Your task to perform on an android device: What's the weather going to be tomorrow? Image 0: 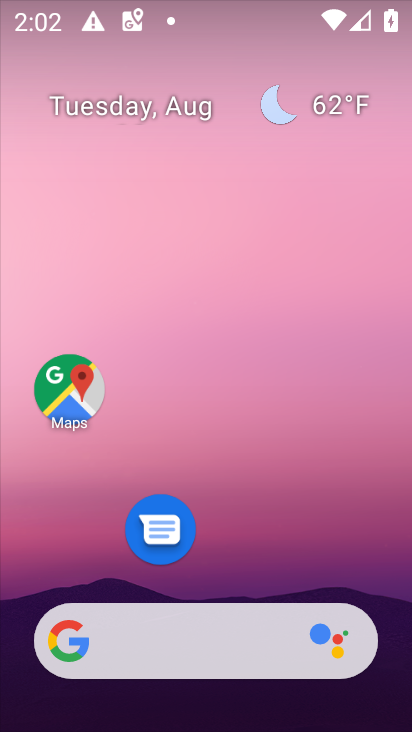
Step 0: click (246, 662)
Your task to perform on an android device: What's the weather going to be tomorrow? Image 1: 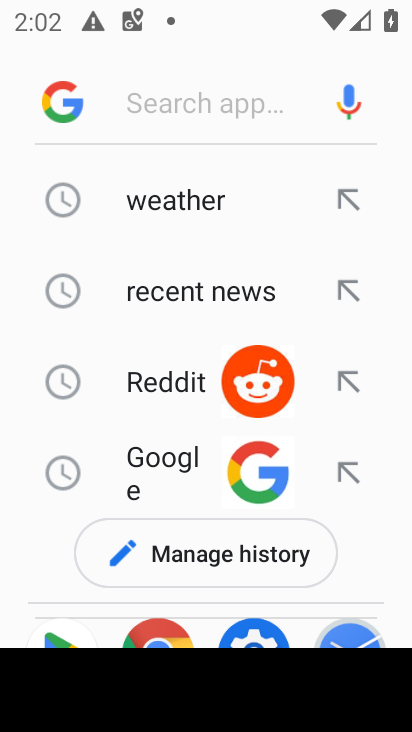
Step 1: click (181, 191)
Your task to perform on an android device: What's the weather going to be tomorrow? Image 2: 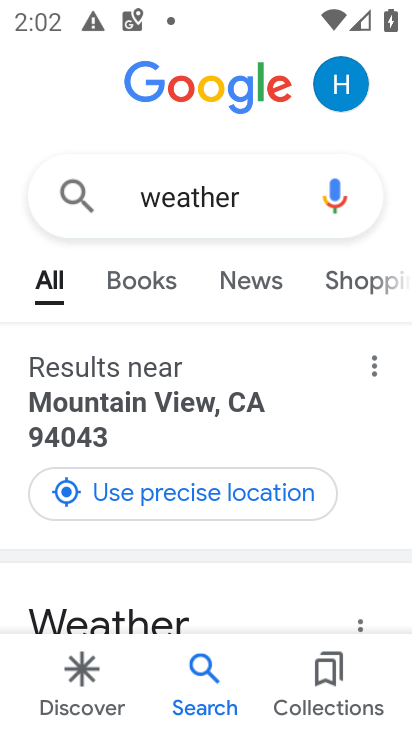
Step 2: drag from (226, 439) to (187, 82)
Your task to perform on an android device: What's the weather going to be tomorrow? Image 3: 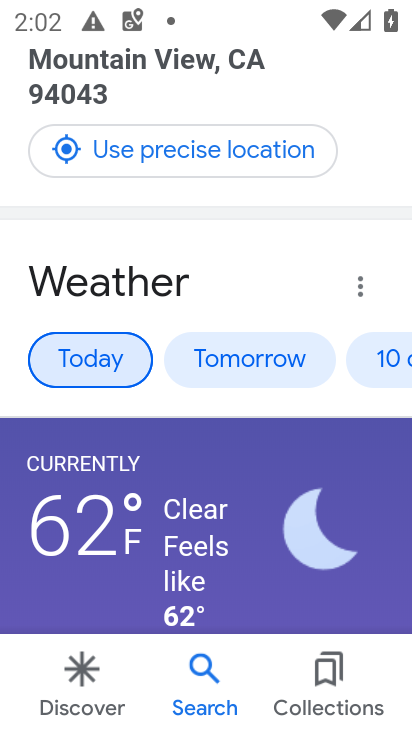
Step 3: click (224, 379)
Your task to perform on an android device: What's the weather going to be tomorrow? Image 4: 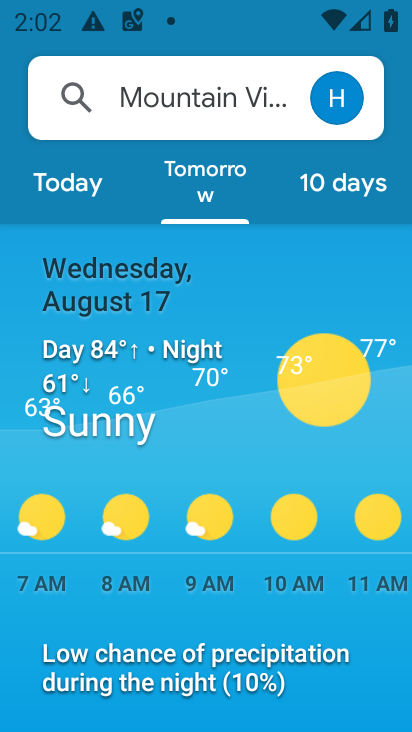
Step 4: task complete